Your task to perform on an android device: turn on bluetooth scan Image 0: 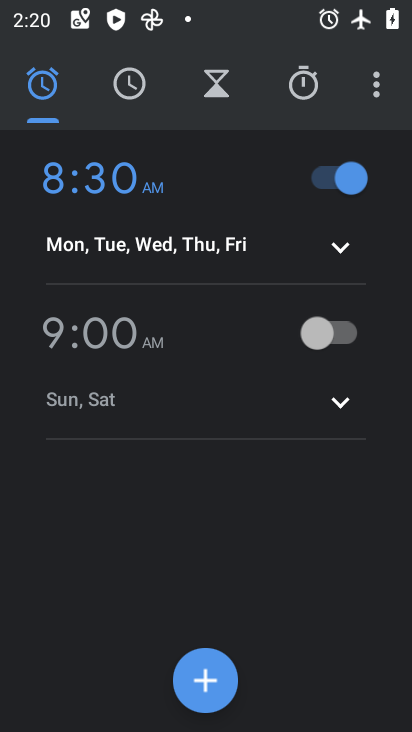
Step 0: press home button
Your task to perform on an android device: turn on bluetooth scan Image 1: 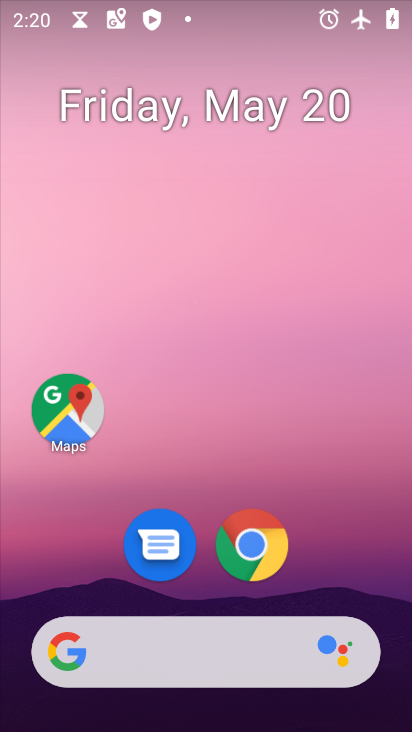
Step 1: drag from (336, 556) to (309, 84)
Your task to perform on an android device: turn on bluetooth scan Image 2: 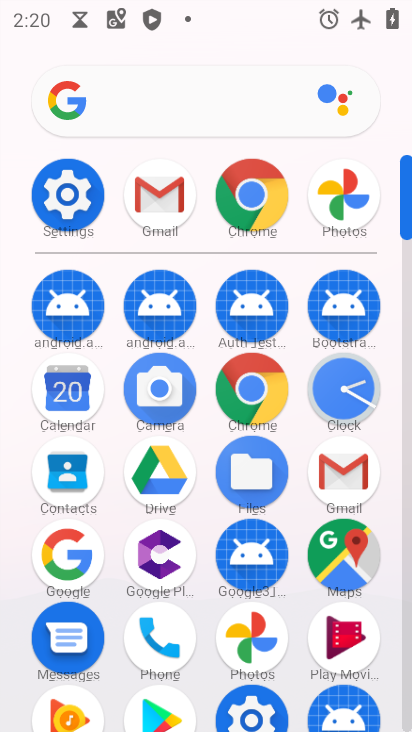
Step 2: click (79, 200)
Your task to perform on an android device: turn on bluetooth scan Image 3: 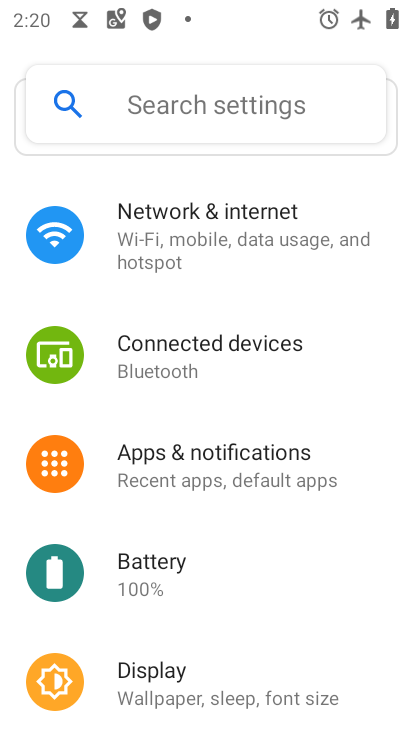
Step 3: drag from (293, 630) to (266, 162)
Your task to perform on an android device: turn on bluetooth scan Image 4: 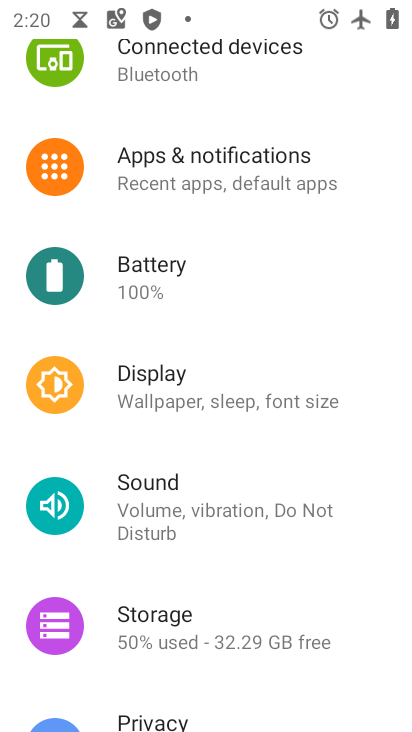
Step 4: drag from (275, 568) to (280, 179)
Your task to perform on an android device: turn on bluetooth scan Image 5: 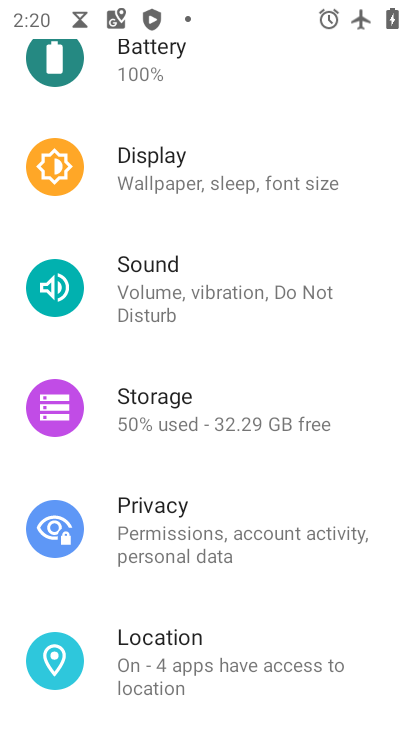
Step 5: click (224, 647)
Your task to perform on an android device: turn on bluetooth scan Image 6: 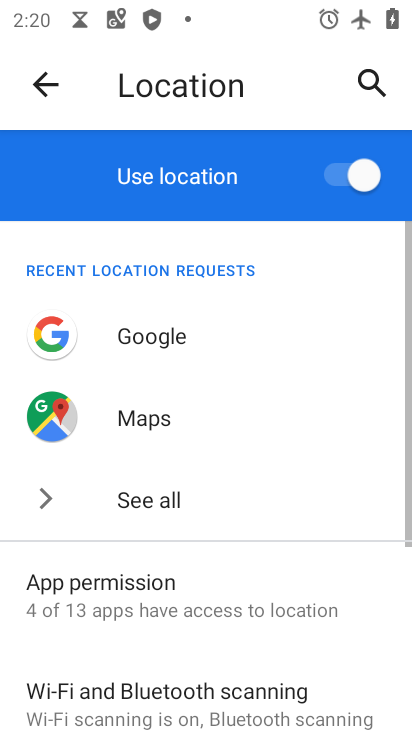
Step 6: drag from (280, 633) to (277, 360)
Your task to perform on an android device: turn on bluetooth scan Image 7: 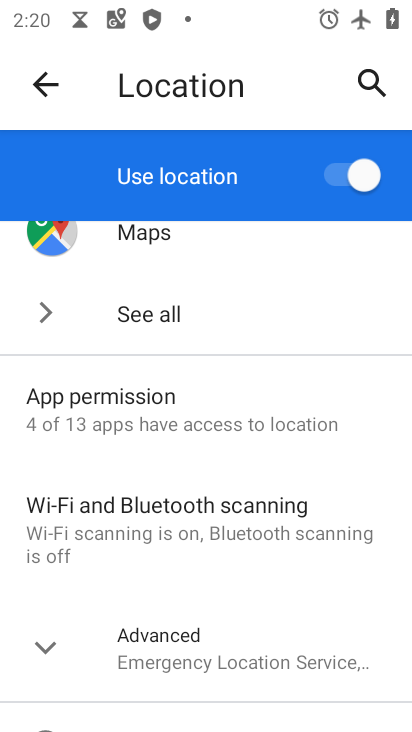
Step 7: click (248, 505)
Your task to perform on an android device: turn on bluetooth scan Image 8: 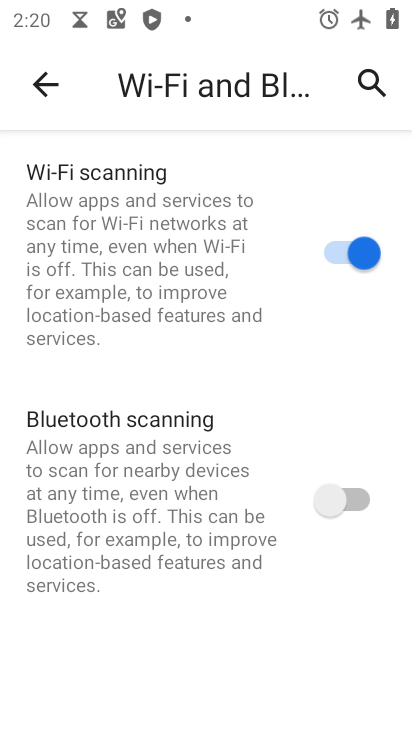
Step 8: click (357, 498)
Your task to perform on an android device: turn on bluetooth scan Image 9: 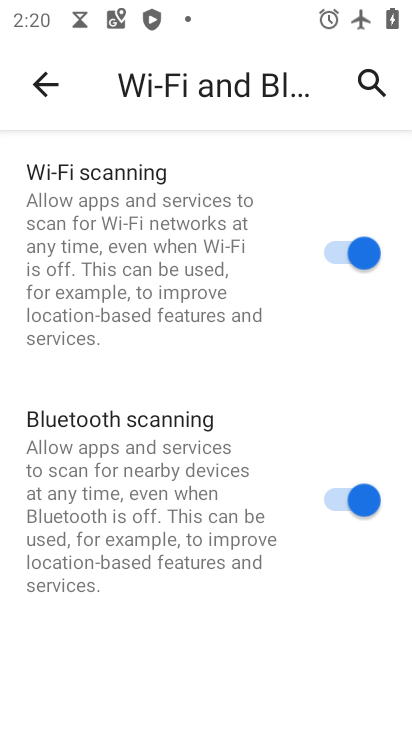
Step 9: task complete